Your task to perform on an android device: manage bookmarks in the chrome app Image 0: 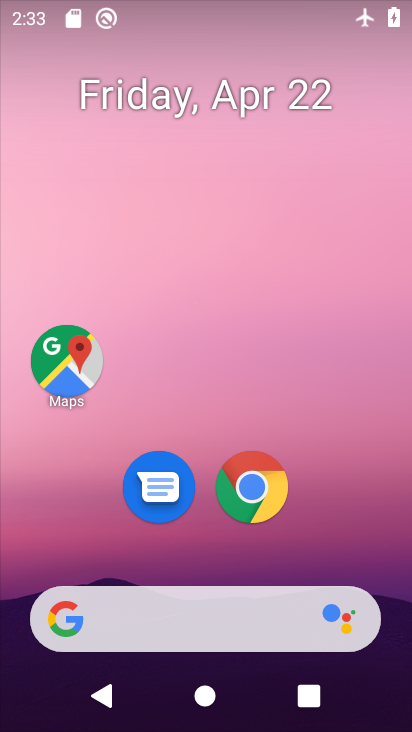
Step 0: click (266, 493)
Your task to perform on an android device: manage bookmarks in the chrome app Image 1: 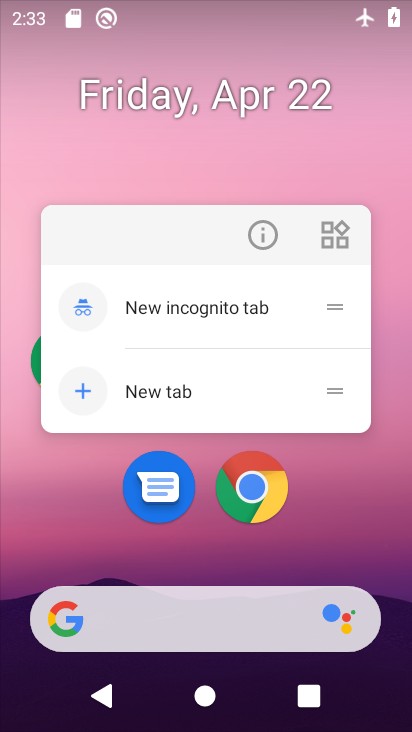
Step 1: click (264, 234)
Your task to perform on an android device: manage bookmarks in the chrome app Image 2: 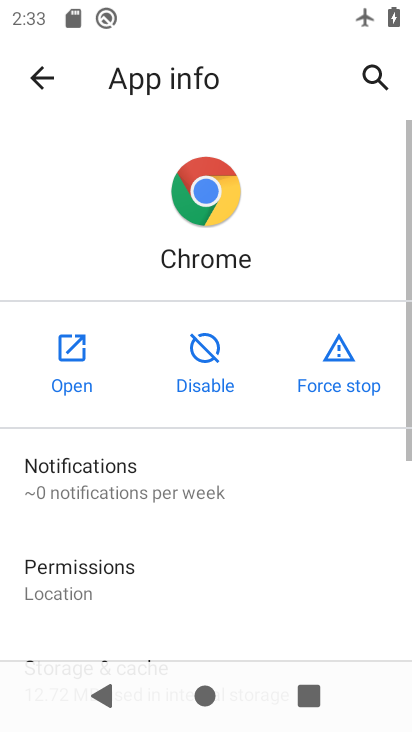
Step 2: click (54, 377)
Your task to perform on an android device: manage bookmarks in the chrome app Image 3: 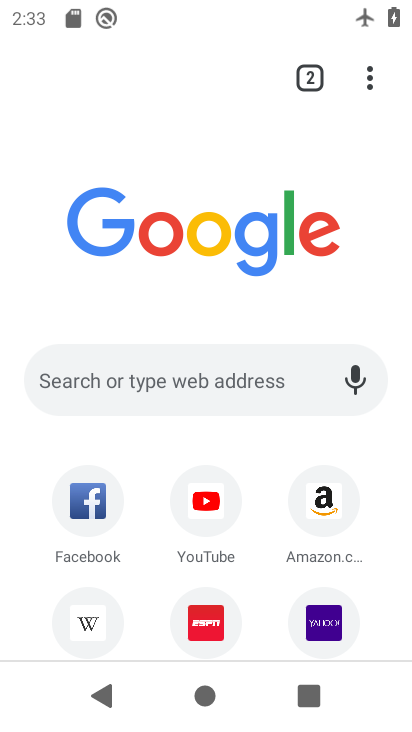
Step 3: click (376, 86)
Your task to perform on an android device: manage bookmarks in the chrome app Image 4: 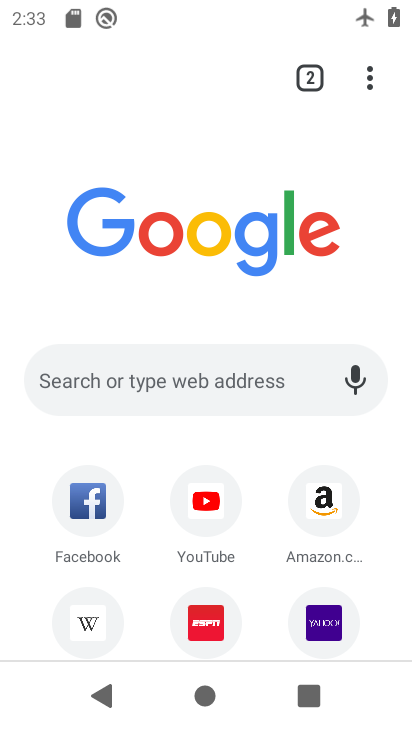
Step 4: click (374, 79)
Your task to perform on an android device: manage bookmarks in the chrome app Image 5: 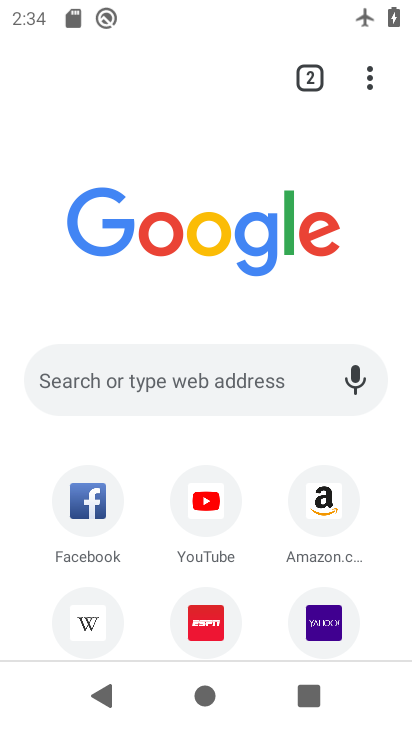
Step 5: click (367, 78)
Your task to perform on an android device: manage bookmarks in the chrome app Image 6: 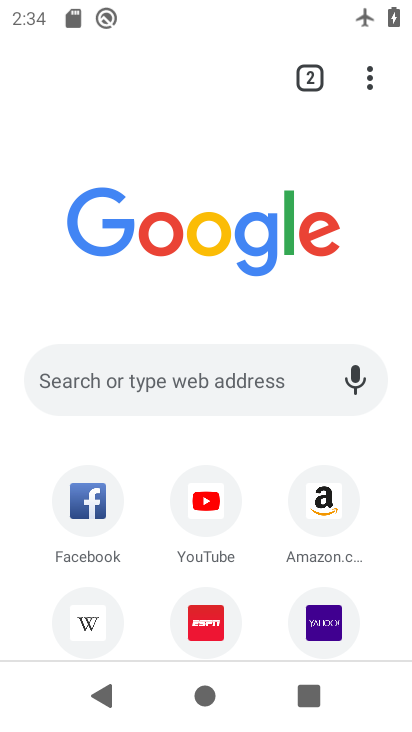
Step 6: click (367, 78)
Your task to perform on an android device: manage bookmarks in the chrome app Image 7: 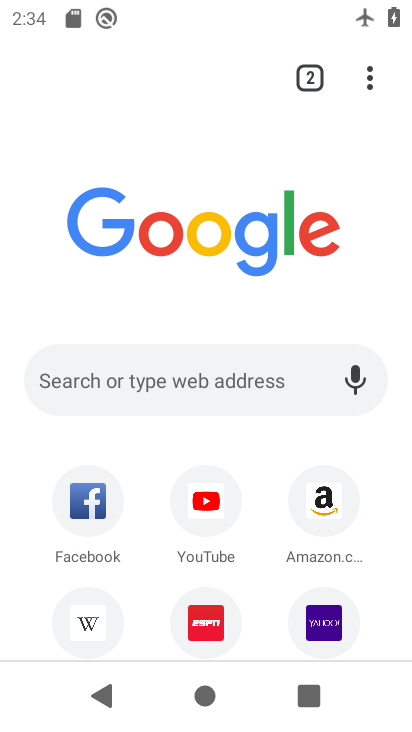
Step 7: click (378, 75)
Your task to perform on an android device: manage bookmarks in the chrome app Image 8: 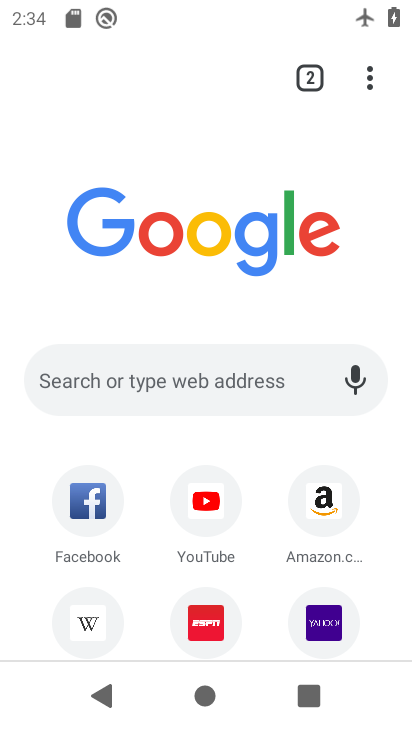
Step 8: click (371, 79)
Your task to perform on an android device: manage bookmarks in the chrome app Image 9: 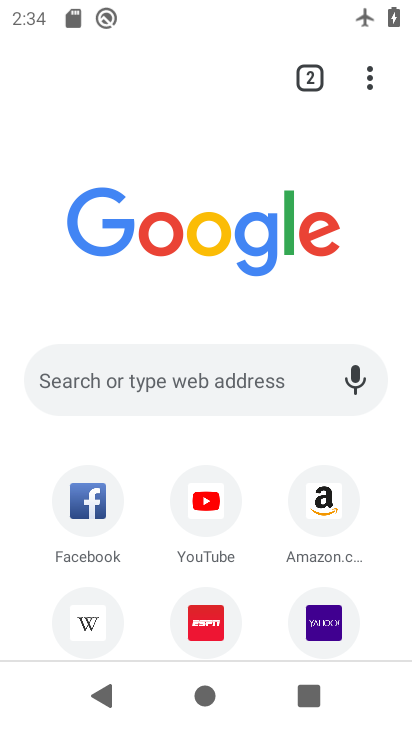
Step 9: click (372, 82)
Your task to perform on an android device: manage bookmarks in the chrome app Image 10: 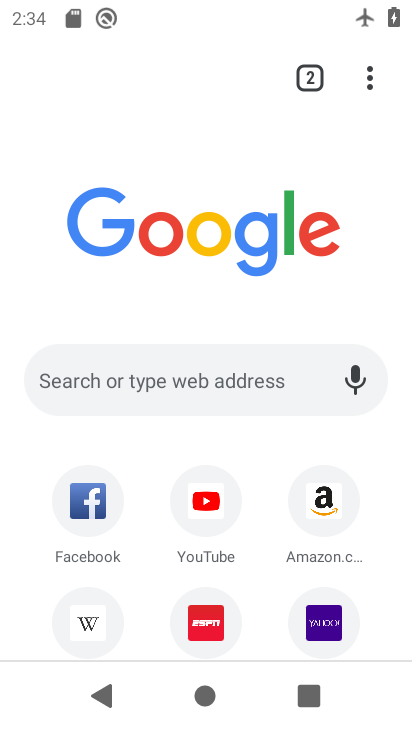
Step 10: click (375, 74)
Your task to perform on an android device: manage bookmarks in the chrome app Image 11: 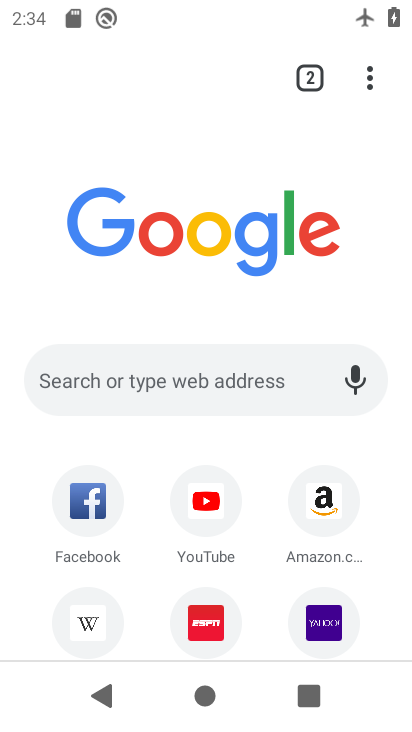
Step 11: click (361, 81)
Your task to perform on an android device: manage bookmarks in the chrome app Image 12: 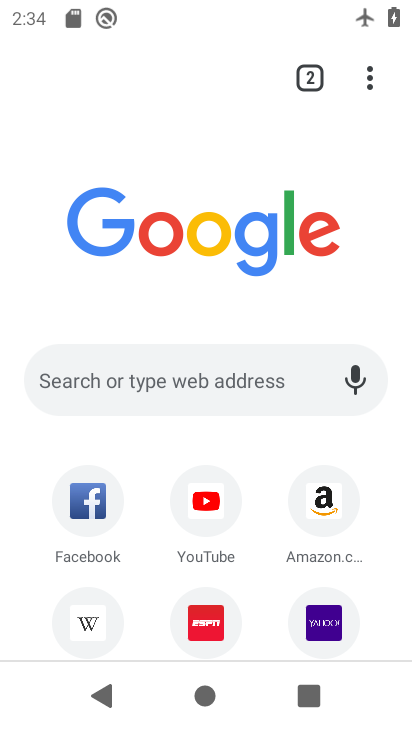
Step 12: click (370, 84)
Your task to perform on an android device: manage bookmarks in the chrome app Image 13: 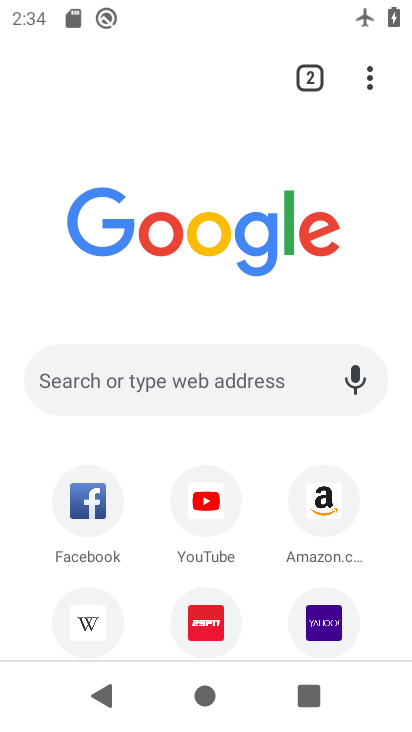
Step 13: click (369, 84)
Your task to perform on an android device: manage bookmarks in the chrome app Image 14: 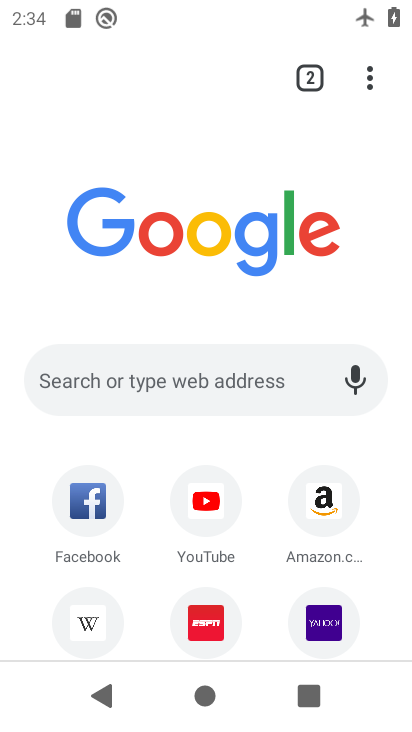
Step 14: click (368, 88)
Your task to perform on an android device: manage bookmarks in the chrome app Image 15: 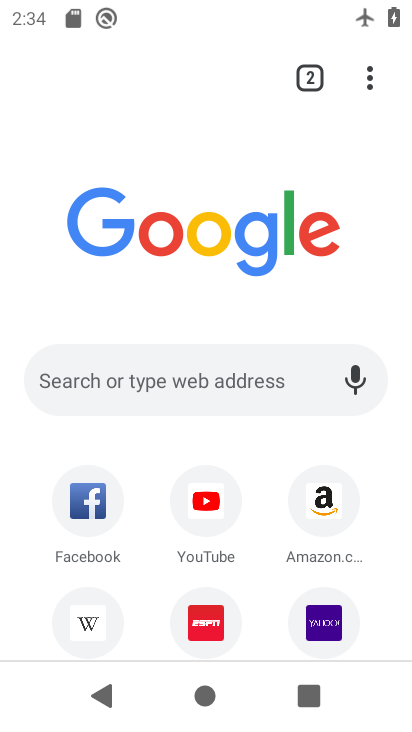
Step 15: click (366, 84)
Your task to perform on an android device: manage bookmarks in the chrome app Image 16: 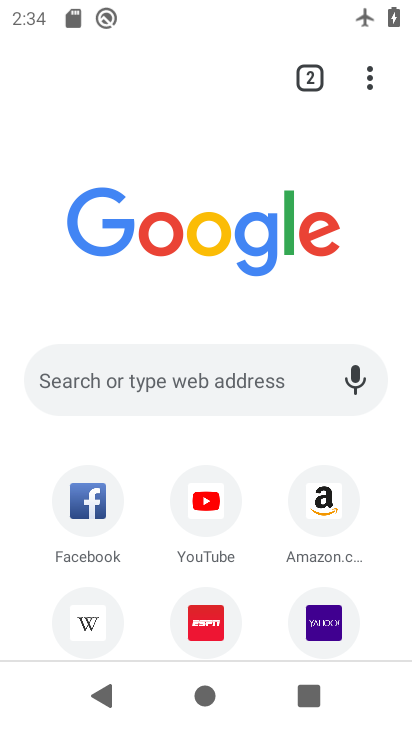
Step 16: click (372, 80)
Your task to perform on an android device: manage bookmarks in the chrome app Image 17: 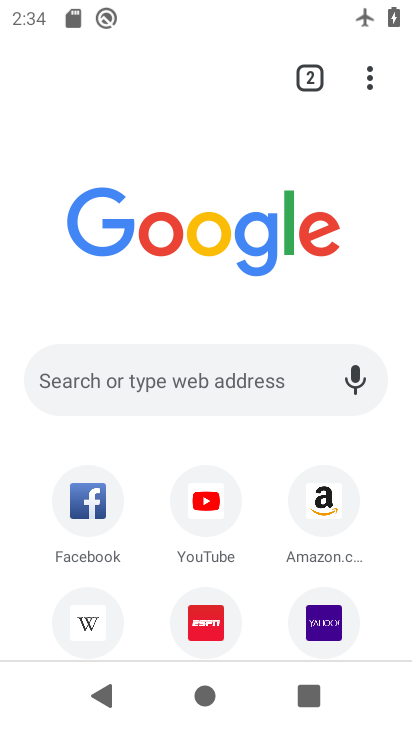
Step 17: click (371, 84)
Your task to perform on an android device: manage bookmarks in the chrome app Image 18: 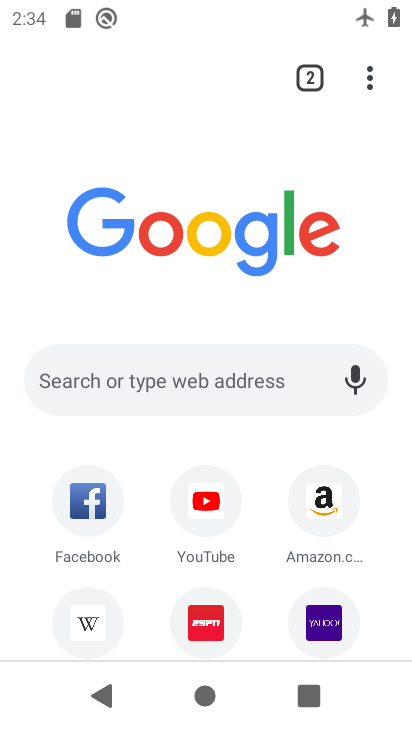
Step 18: click (369, 88)
Your task to perform on an android device: manage bookmarks in the chrome app Image 19: 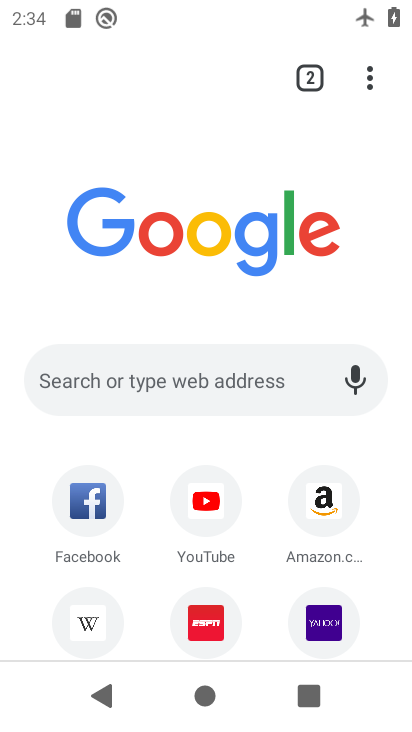
Step 19: click (386, 80)
Your task to perform on an android device: manage bookmarks in the chrome app Image 20: 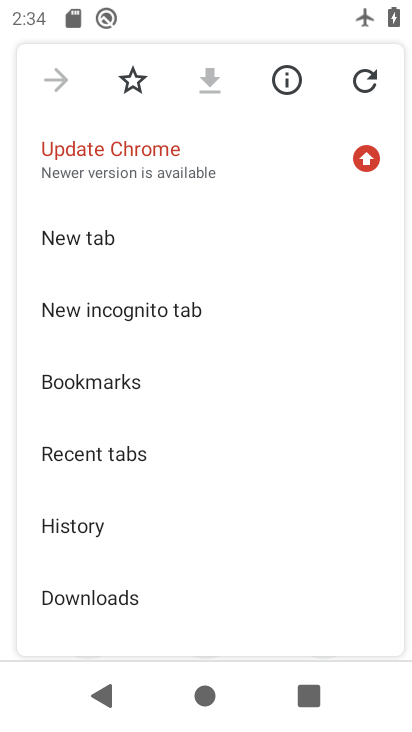
Step 20: click (132, 388)
Your task to perform on an android device: manage bookmarks in the chrome app Image 21: 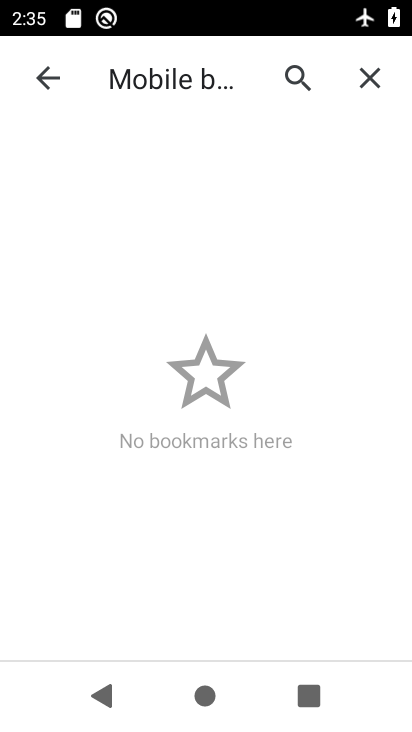
Step 21: task complete